Your task to perform on an android device: turn on priority inbox in the gmail app Image 0: 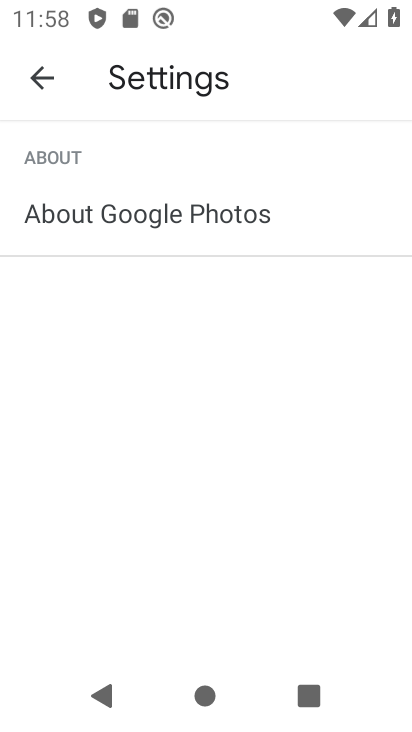
Step 0: press home button
Your task to perform on an android device: turn on priority inbox in the gmail app Image 1: 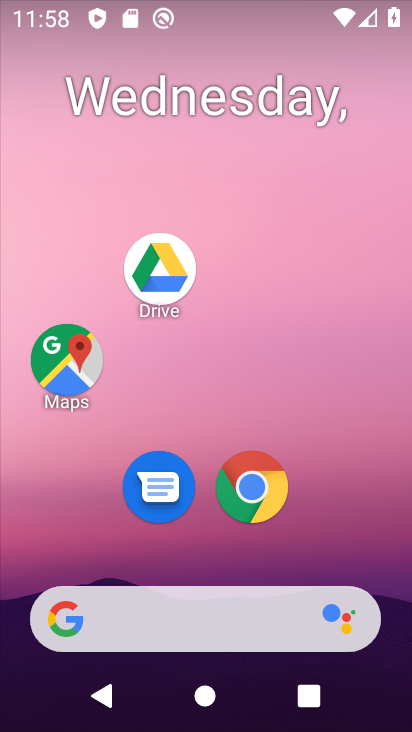
Step 1: drag from (207, 438) to (261, 46)
Your task to perform on an android device: turn on priority inbox in the gmail app Image 2: 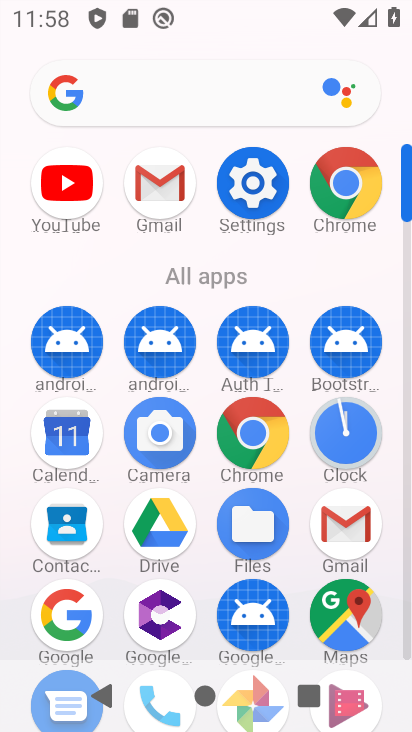
Step 2: click (161, 217)
Your task to perform on an android device: turn on priority inbox in the gmail app Image 3: 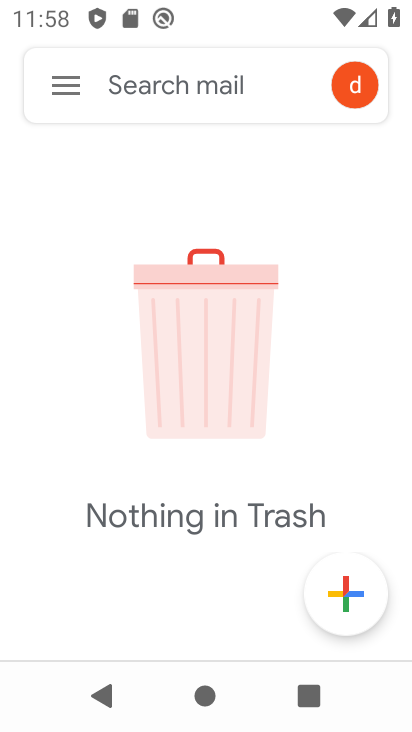
Step 3: click (66, 86)
Your task to perform on an android device: turn on priority inbox in the gmail app Image 4: 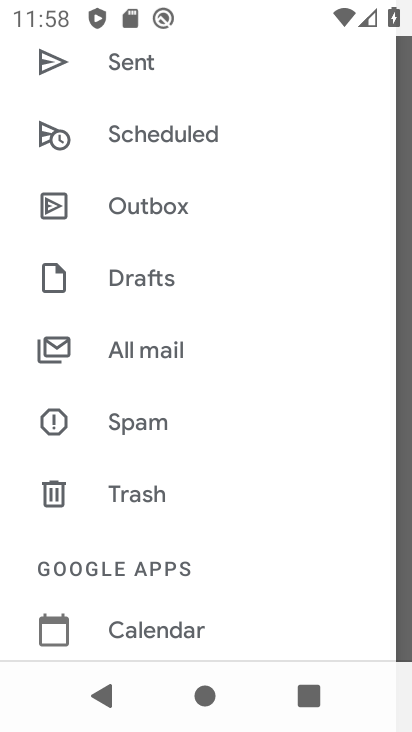
Step 4: drag from (170, 559) to (211, 180)
Your task to perform on an android device: turn on priority inbox in the gmail app Image 5: 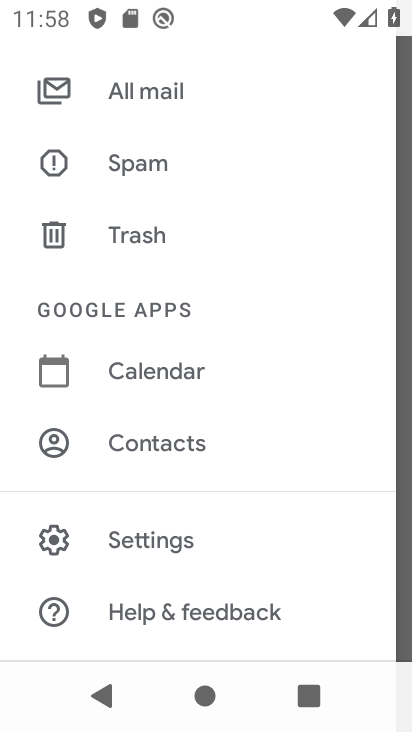
Step 5: click (131, 545)
Your task to perform on an android device: turn on priority inbox in the gmail app Image 6: 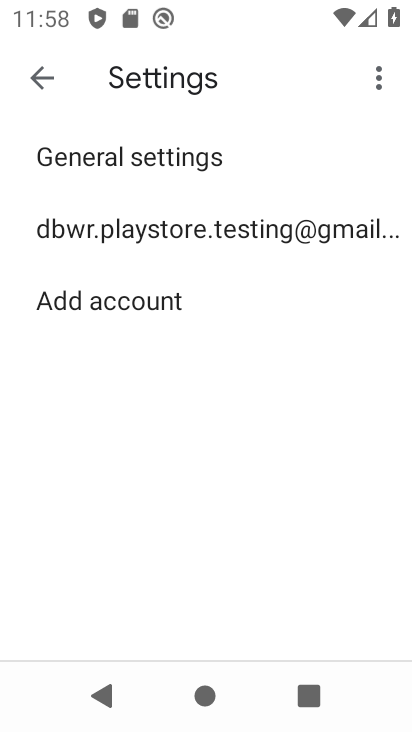
Step 6: click (172, 223)
Your task to perform on an android device: turn on priority inbox in the gmail app Image 7: 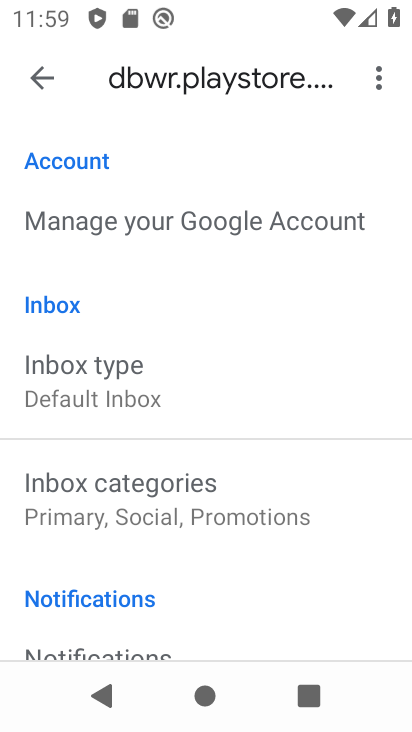
Step 7: click (96, 399)
Your task to perform on an android device: turn on priority inbox in the gmail app Image 8: 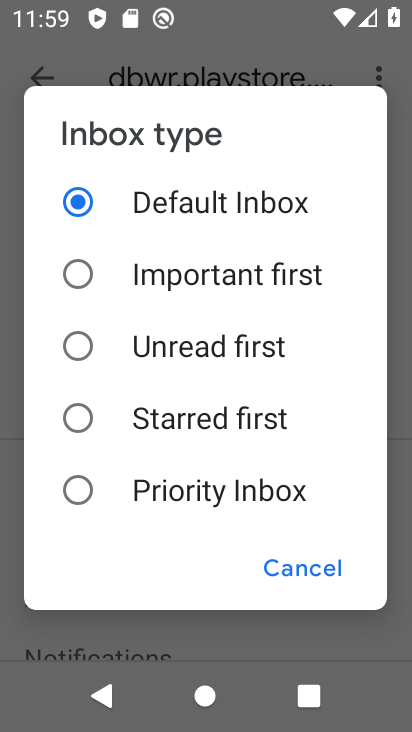
Step 8: click (78, 493)
Your task to perform on an android device: turn on priority inbox in the gmail app Image 9: 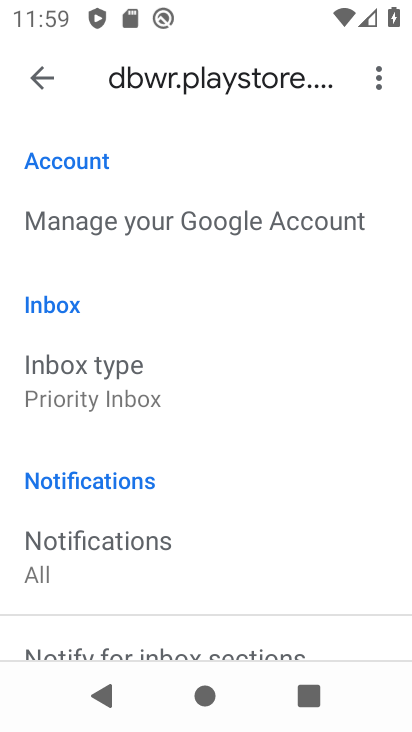
Step 9: task complete